Your task to perform on an android device: show emergency info Image 0: 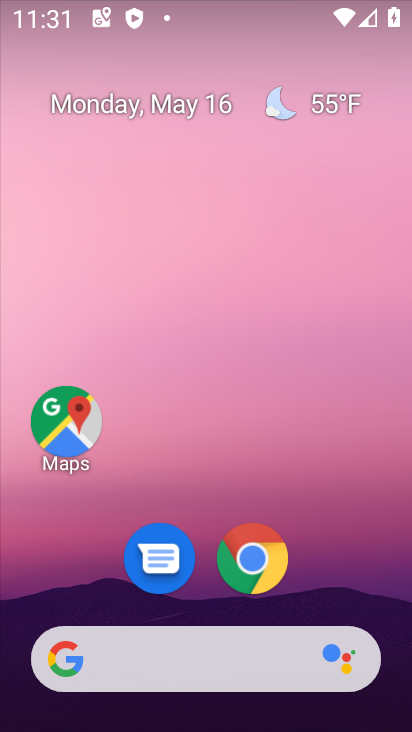
Step 0: drag from (204, 499) to (173, 89)
Your task to perform on an android device: show emergency info Image 1: 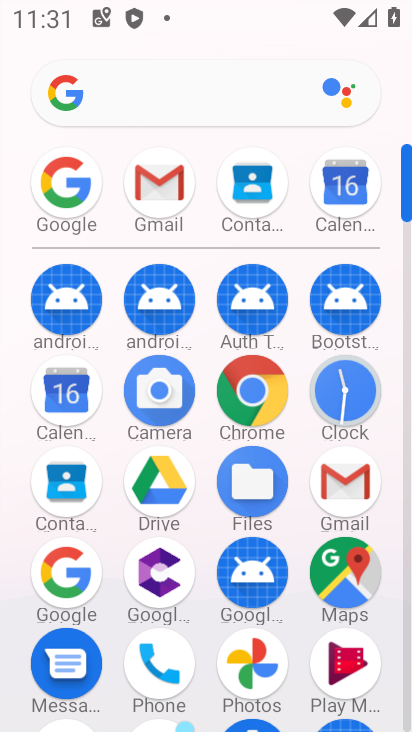
Step 1: drag from (208, 530) to (193, 101)
Your task to perform on an android device: show emergency info Image 2: 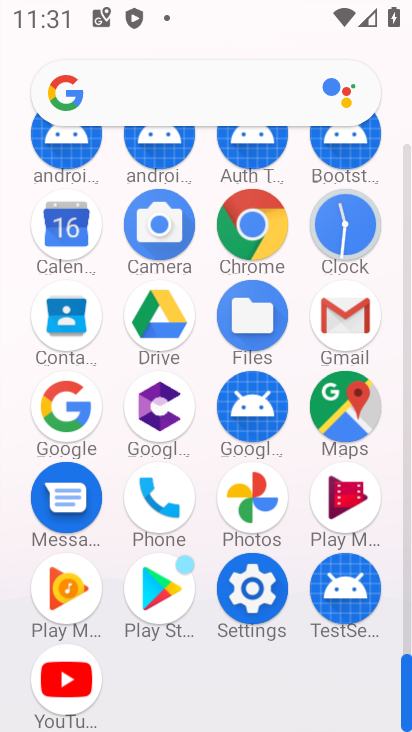
Step 2: click (254, 595)
Your task to perform on an android device: show emergency info Image 3: 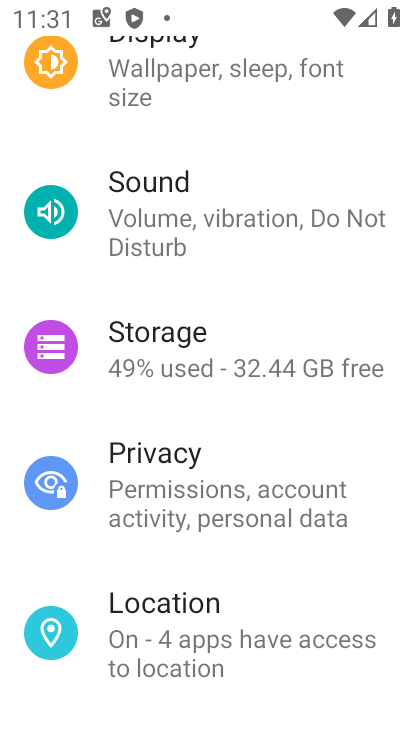
Step 3: drag from (223, 592) to (234, 148)
Your task to perform on an android device: show emergency info Image 4: 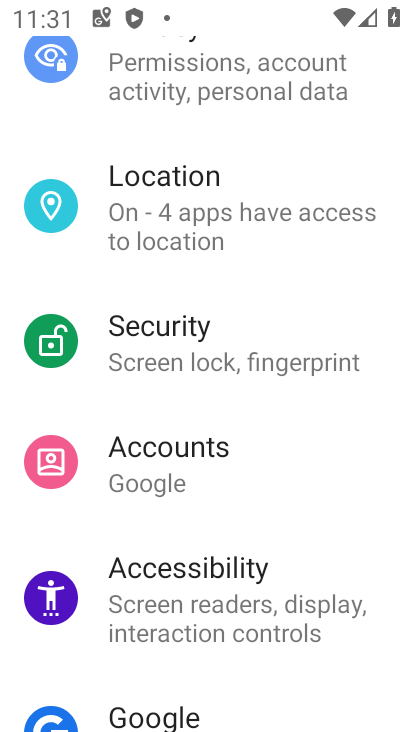
Step 4: drag from (243, 584) to (227, 161)
Your task to perform on an android device: show emergency info Image 5: 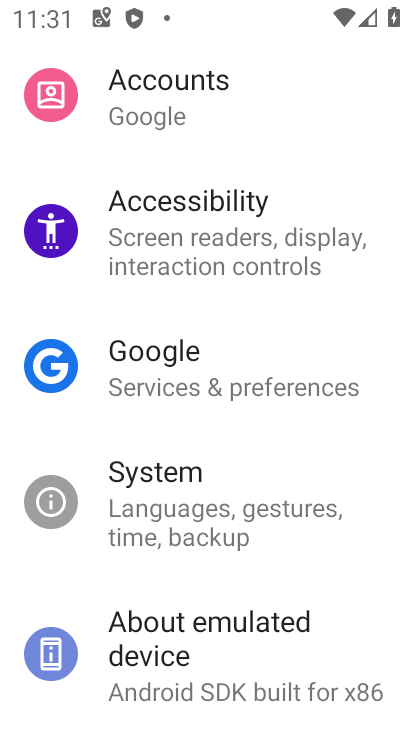
Step 5: drag from (224, 664) to (245, 361)
Your task to perform on an android device: show emergency info Image 6: 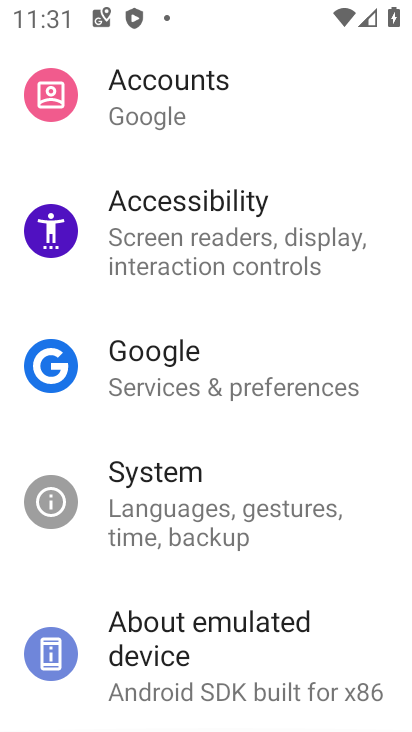
Step 6: click (235, 623)
Your task to perform on an android device: show emergency info Image 7: 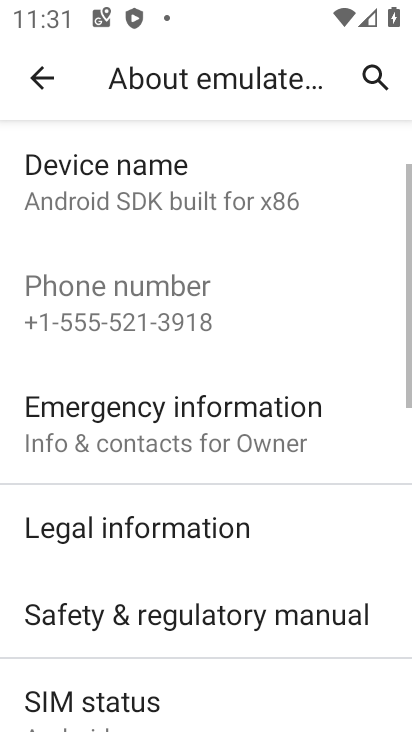
Step 7: click (166, 401)
Your task to perform on an android device: show emergency info Image 8: 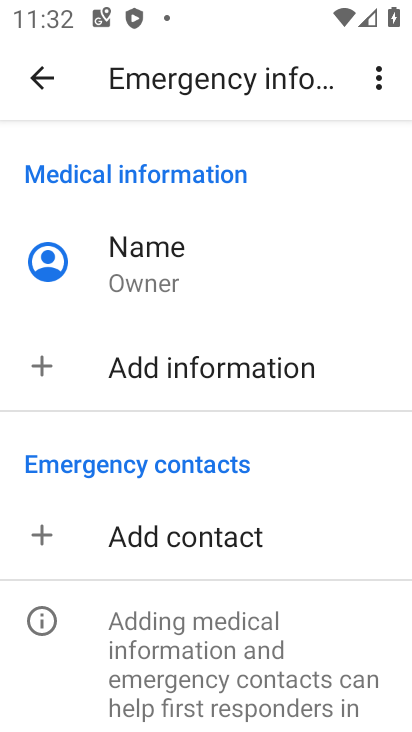
Step 8: task complete